Your task to perform on an android device: delete the emails in spam in the gmail app Image 0: 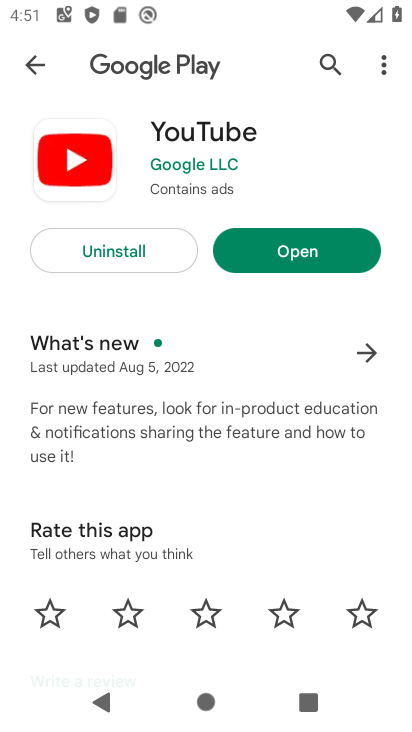
Step 0: press home button
Your task to perform on an android device: delete the emails in spam in the gmail app Image 1: 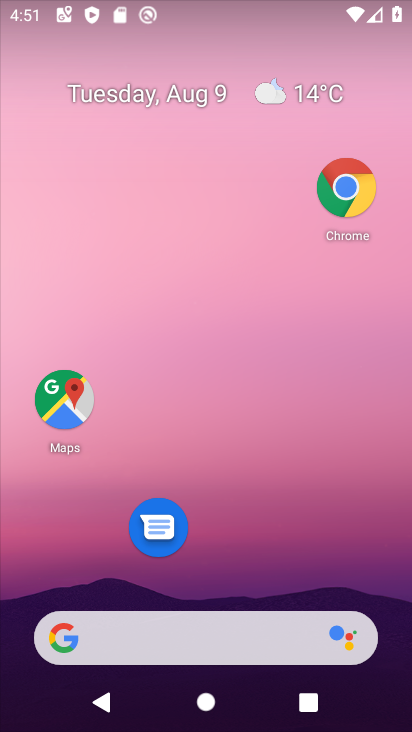
Step 1: drag from (307, 553) to (234, 131)
Your task to perform on an android device: delete the emails in spam in the gmail app Image 2: 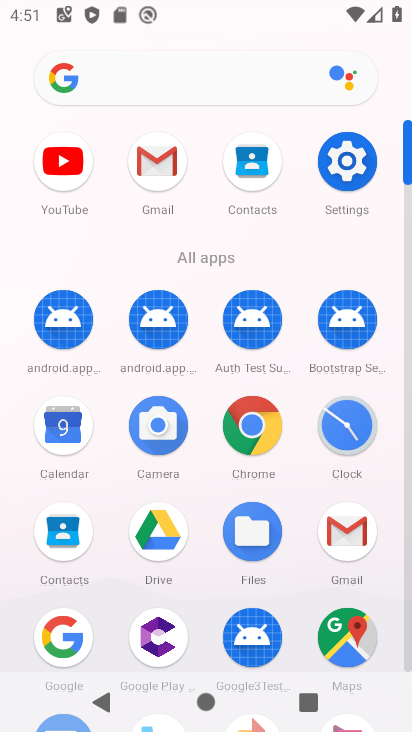
Step 2: click (157, 134)
Your task to perform on an android device: delete the emails in spam in the gmail app Image 3: 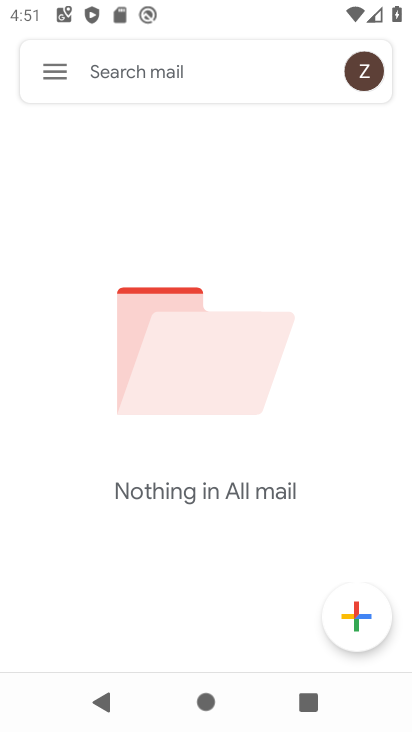
Step 3: click (51, 82)
Your task to perform on an android device: delete the emails in spam in the gmail app Image 4: 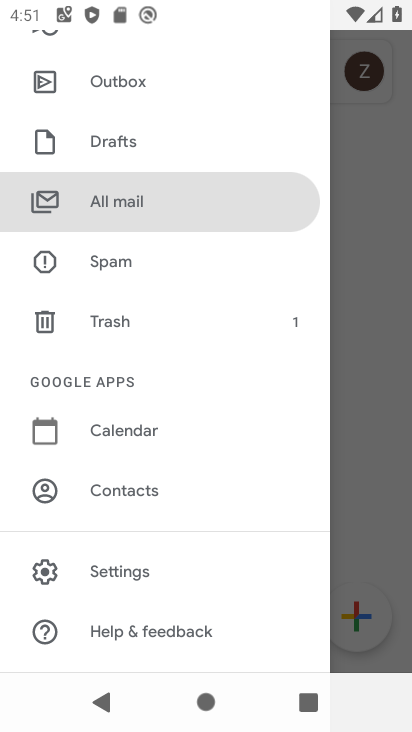
Step 4: click (141, 278)
Your task to perform on an android device: delete the emails in spam in the gmail app Image 5: 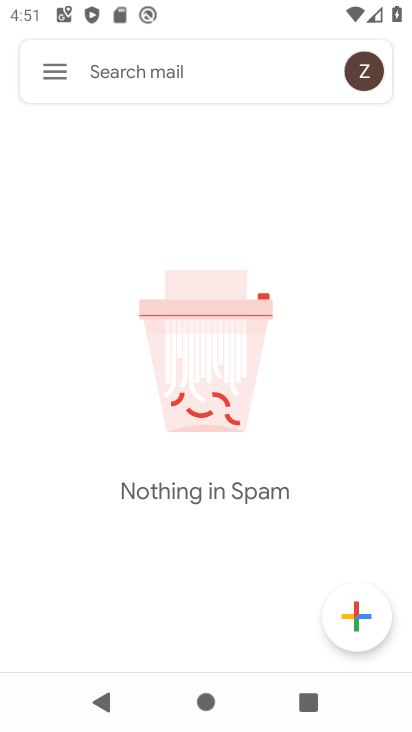
Step 5: task complete